Your task to perform on an android device: Go to calendar. Show me events next week Image 0: 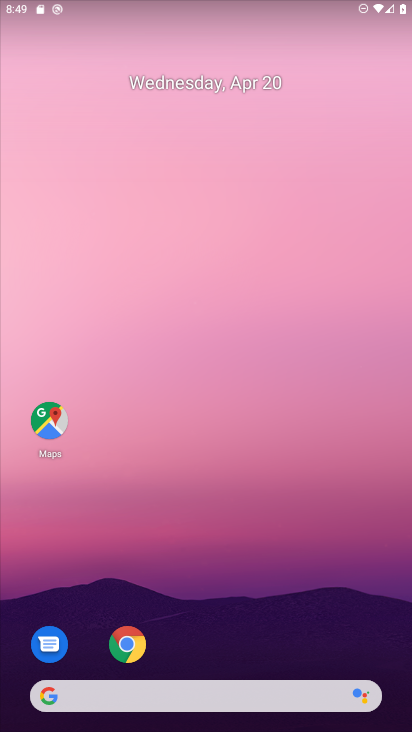
Step 0: drag from (316, 633) to (272, 77)
Your task to perform on an android device: Go to calendar. Show me events next week Image 1: 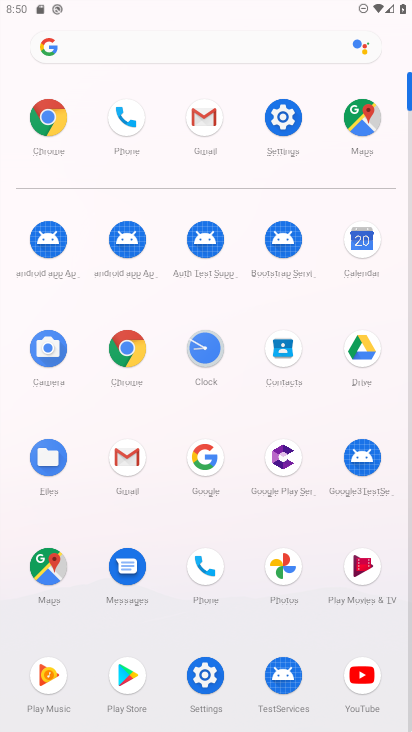
Step 1: click (352, 235)
Your task to perform on an android device: Go to calendar. Show me events next week Image 2: 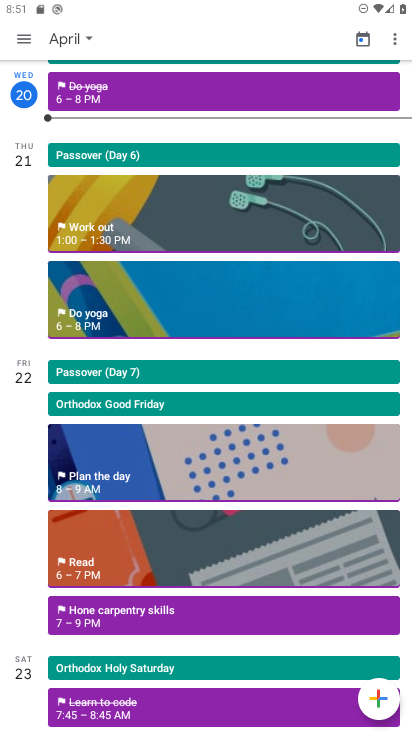
Step 2: click (56, 33)
Your task to perform on an android device: Go to calendar. Show me events next week Image 3: 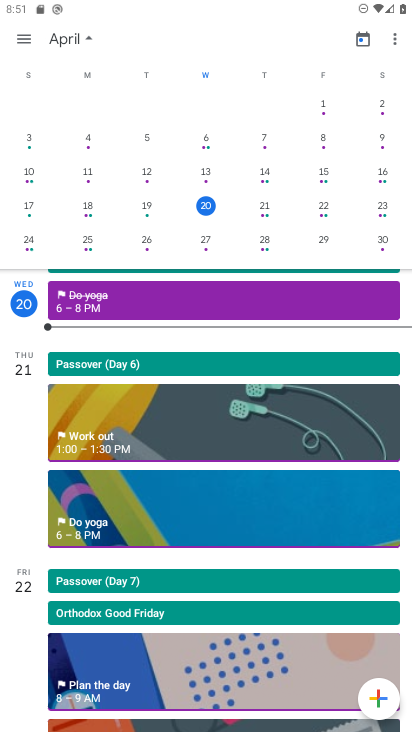
Step 3: click (372, 684)
Your task to perform on an android device: Go to calendar. Show me events next week Image 4: 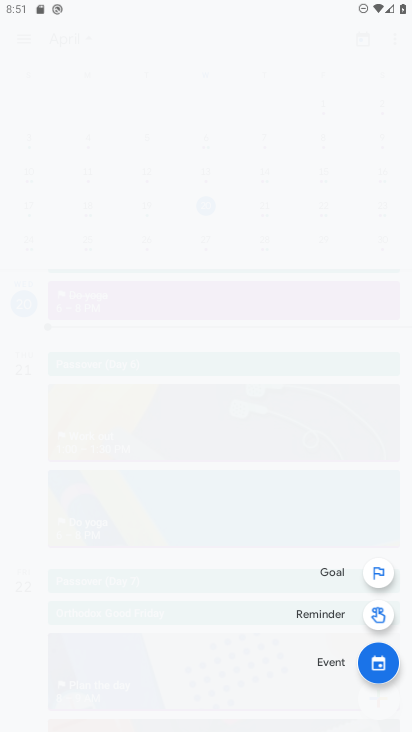
Step 4: click (334, 665)
Your task to perform on an android device: Go to calendar. Show me events next week Image 5: 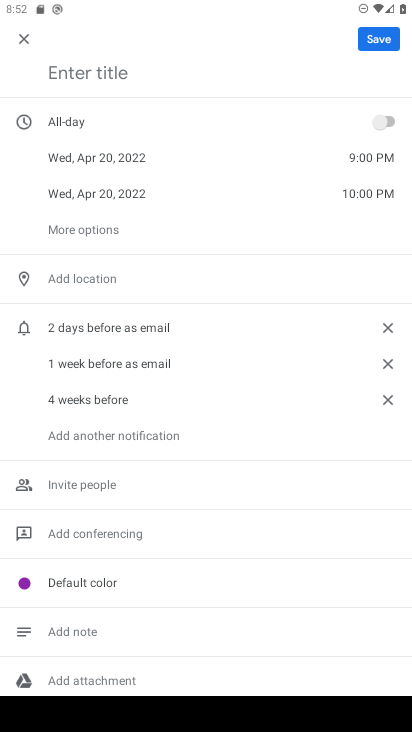
Step 5: type "PO meet"
Your task to perform on an android device: Go to calendar. Show me events next week Image 6: 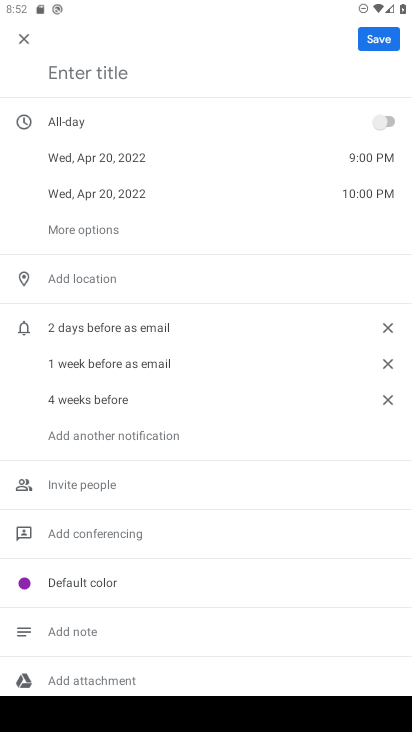
Step 6: click (380, 41)
Your task to perform on an android device: Go to calendar. Show me events next week Image 7: 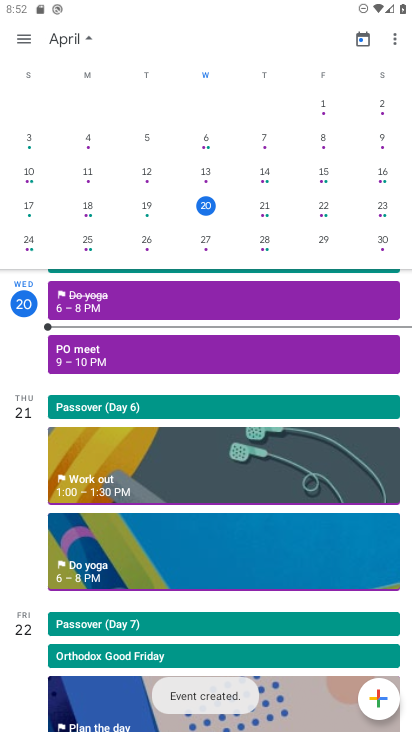
Step 7: task complete